Your task to perform on an android device: Is it going to rain today? Image 0: 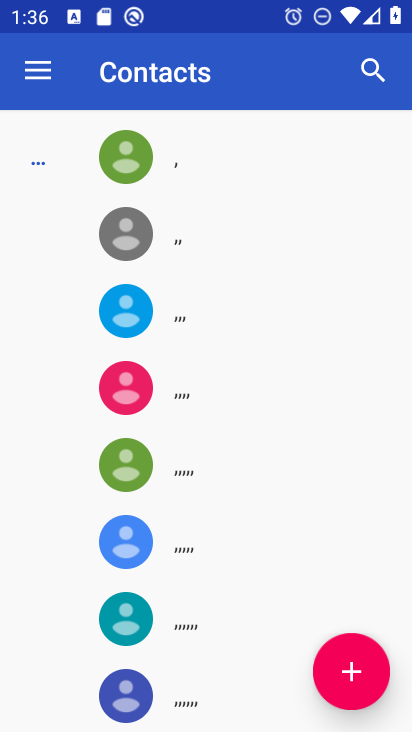
Step 0: press home button
Your task to perform on an android device: Is it going to rain today? Image 1: 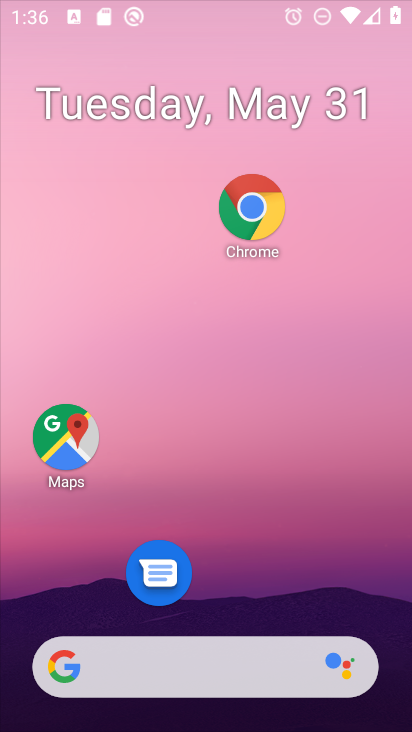
Step 1: drag from (230, 557) to (218, 230)
Your task to perform on an android device: Is it going to rain today? Image 2: 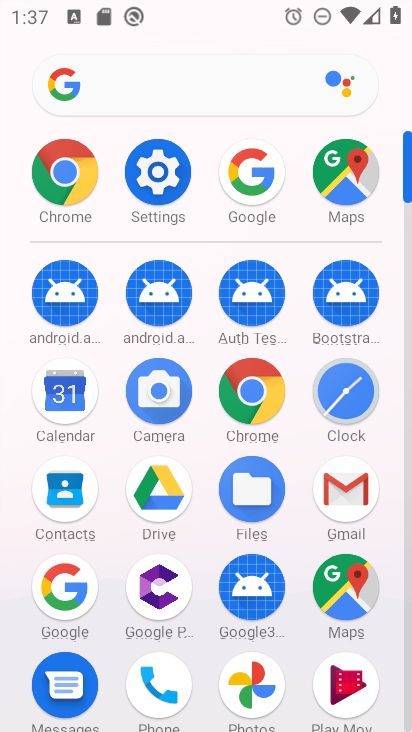
Step 2: click (79, 609)
Your task to perform on an android device: Is it going to rain today? Image 3: 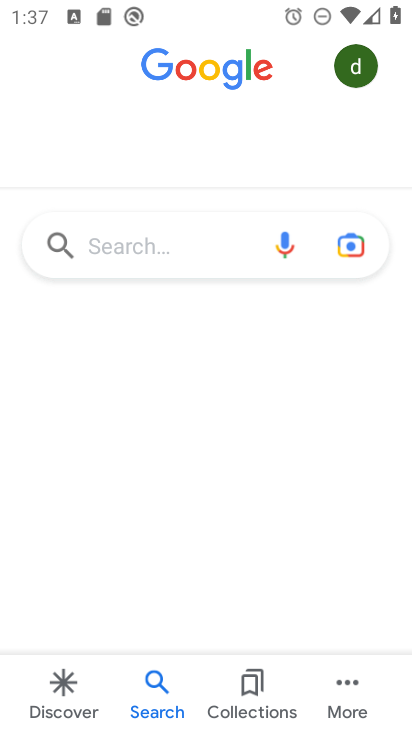
Step 3: click (147, 262)
Your task to perform on an android device: Is it going to rain today? Image 4: 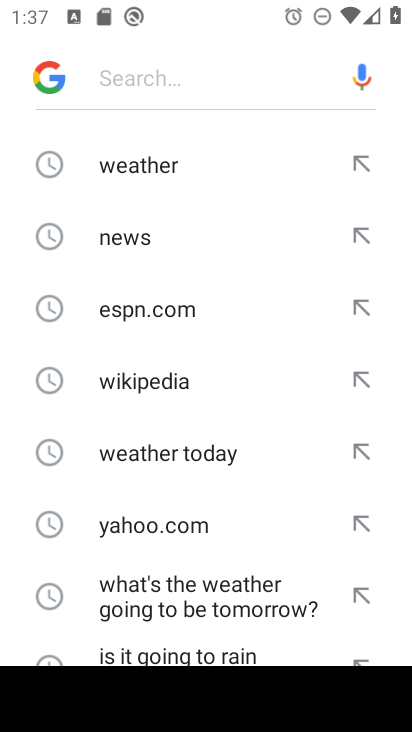
Step 4: click (167, 173)
Your task to perform on an android device: Is it going to rain today? Image 5: 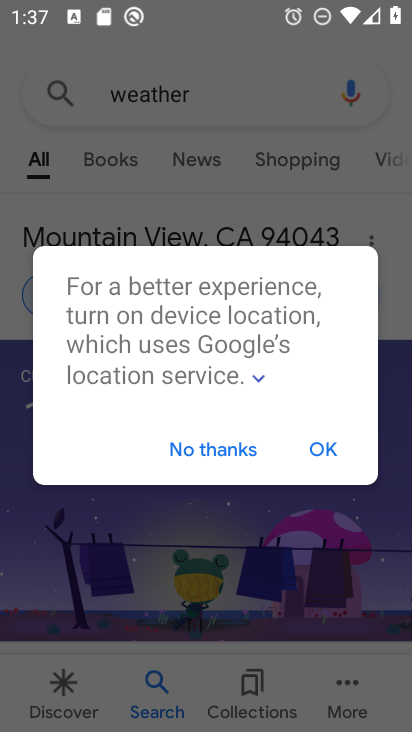
Step 5: click (325, 447)
Your task to perform on an android device: Is it going to rain today? Image 6: 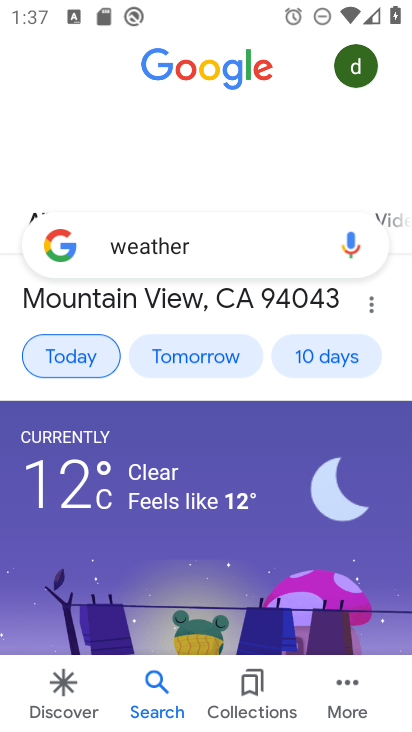
Step 6: task complete